Your task to perform on an android device: turn off location history Image 0: 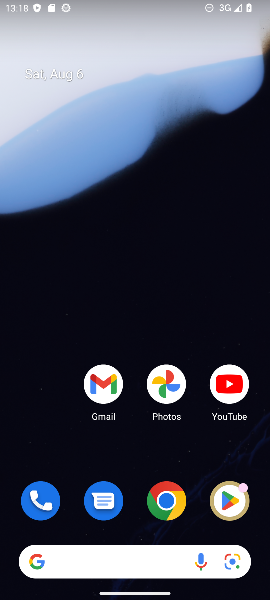
Step 0: drag from (124, 475) to (123, 4)
Your task to perform on an android device: turn off location history Image 1: 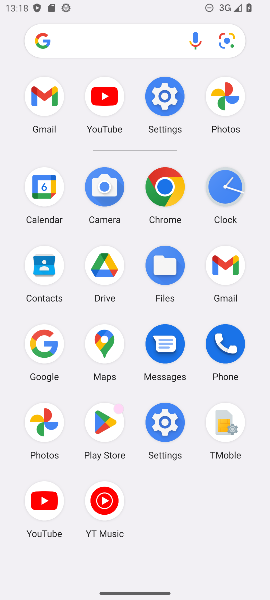
Step 1: click (167, 428)
Your task to perform on an android device: turn off location history Image 2: 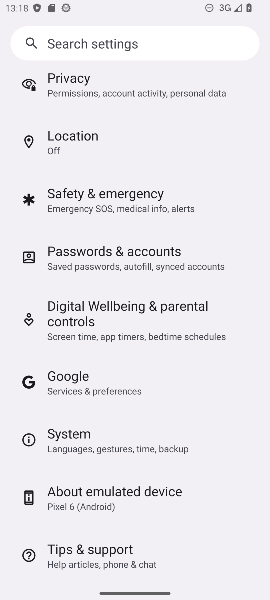
Step 2: drag from (88, 313) to (59, 465)
Your task to perform on an android device: turn off location history Image 3: 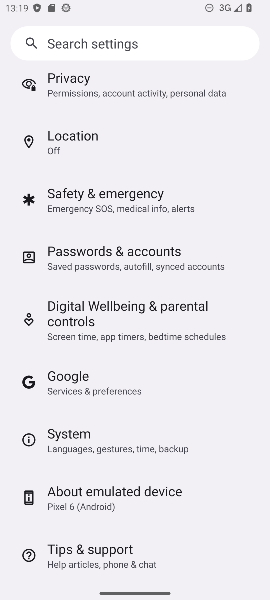
Step 3: click (67, 155)
Your task to perform on an android device: turn off location history Image 4: 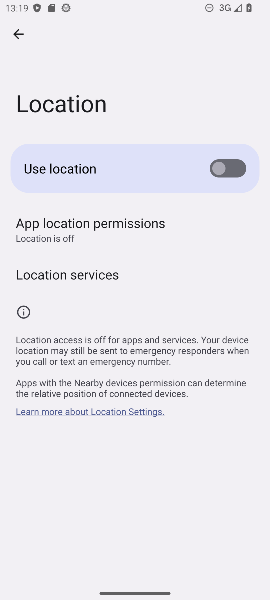
Step 4: click (103, 271)
Your task to perform on an android device: turn off location history Image 5: 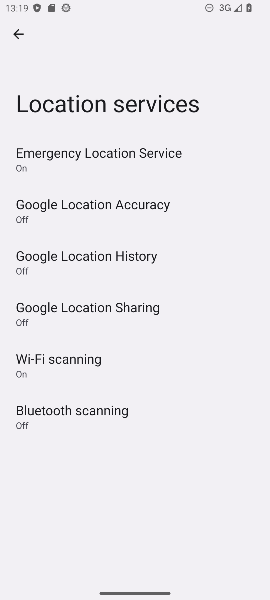
Step 5: click (113, 252)
Your task to perform on an android device: turn off location history Image 6: 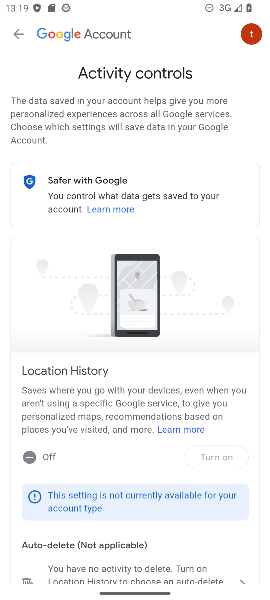
Step 6: task complete